Your task to perform on an android device: read, delete, or share a saved page in the chrome app Image 0: 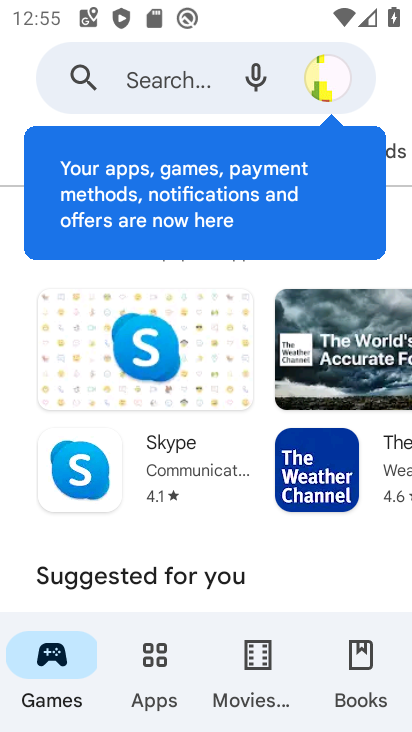
Step 0: press back button
Your task to perform on an android device: read, delete, or share a saved page in the chrome app Image 1: 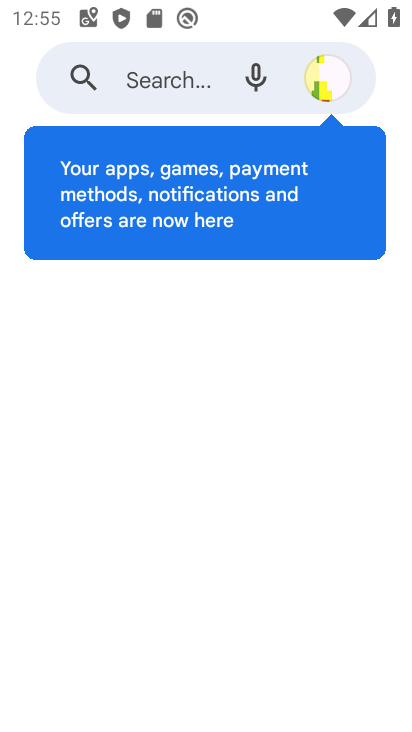
Step 1: press back button
Your task to perform on an android device: read, delete, or share a saved page in the chrome app Image 2: 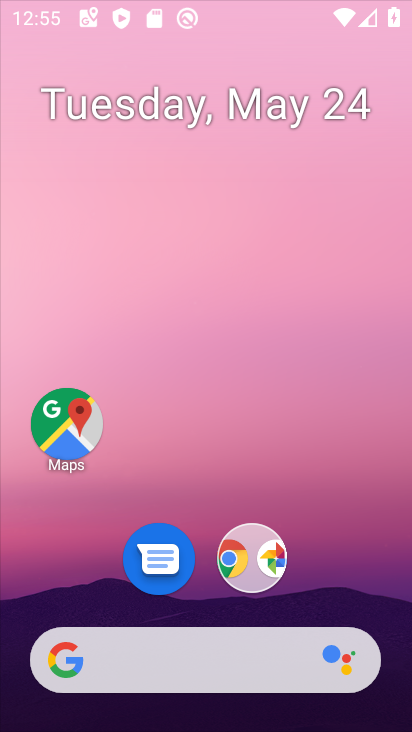
Step 2: press back button
Your task to perform on an android device: read, delete, or share a saved page in the chrome app Image 3: 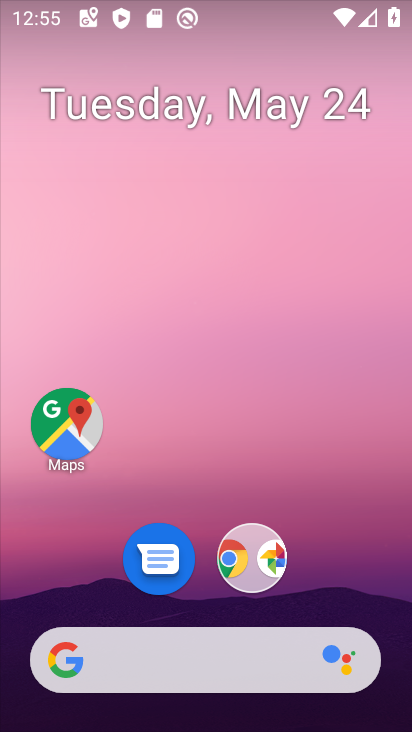
Step 3: drag from (254, 632) to (170, 33)
Your task to perform on an android device: read, delete, or share a saved page in the chrome app Image 4: 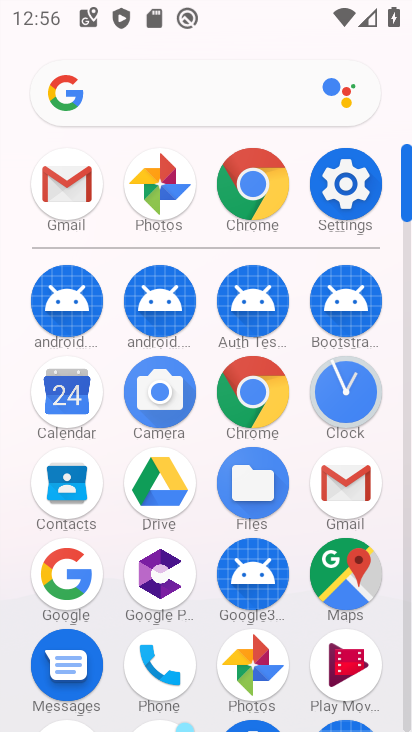
Step 4: click (346, 179)
Your task to perform on an android device: read, delete, or share a saved page in the chrome app Image 5: 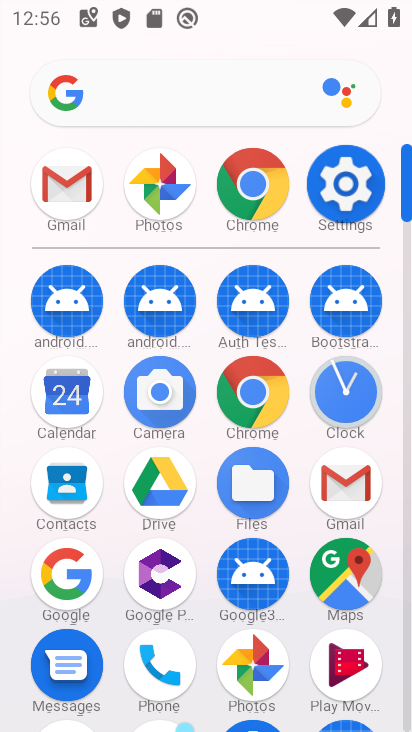
Step 5: click (346, 179)
Your task to perform on an android device: read, delete, or share a saved page in the chrome app Image 6: 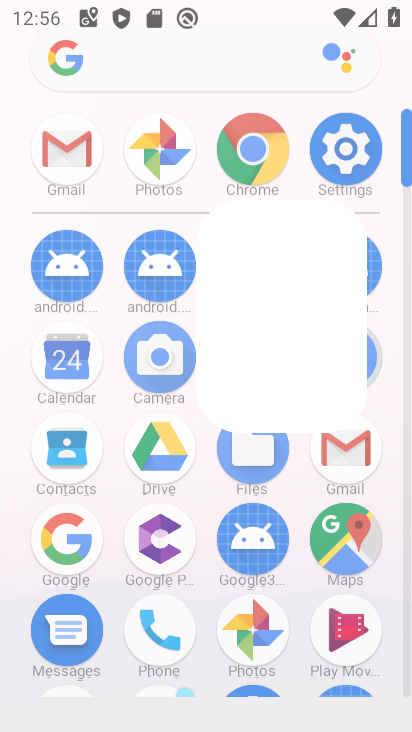
Step 6: click (345, 182)
Your task to perform on an android device: read, delete, or share a saved page in the chrome app Image 7: 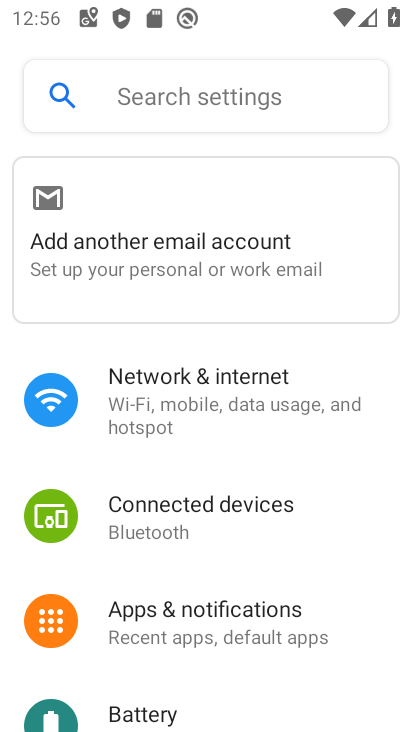
Step 7: press back button
Your task to perform on an android device: read, delete, or share a saved page in the chrome app Image 8: 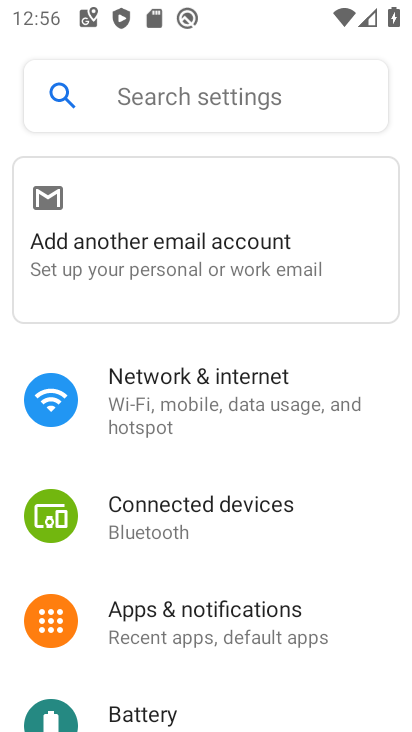
Step 8: press back button
Your task to perform on an android device: read, delete, or share a saved page in the chrome app Image 9: 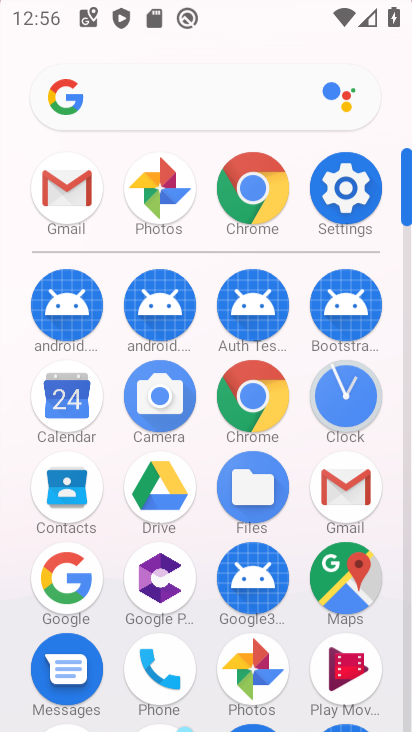
Step 9: press back button
Your task to perform on an android device: read, delete, or share a saved page in the chrome app Image 10: 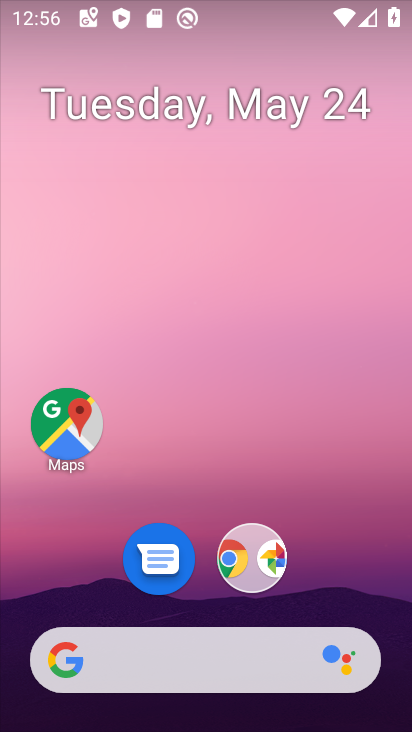
Step 10: drag from (209, 505) to (179, 21)
Your task to perform on an android device: read, delete, or share a saved page in the chrome app Image 11: 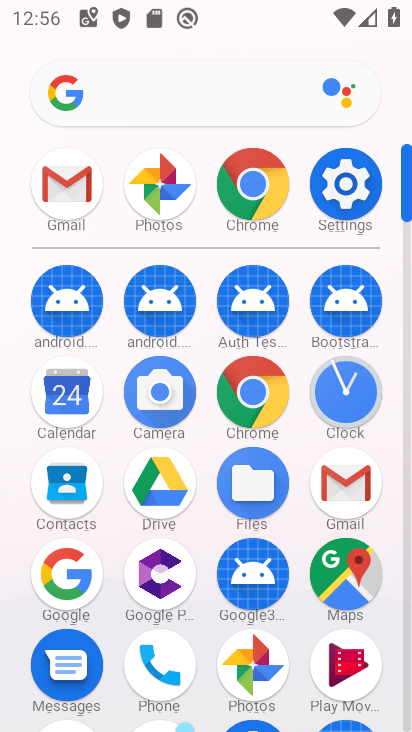
Step 11: click (260, 169)
Your task to perform on an android device: read, delete, or share a saved page in the chrome app Image 12: 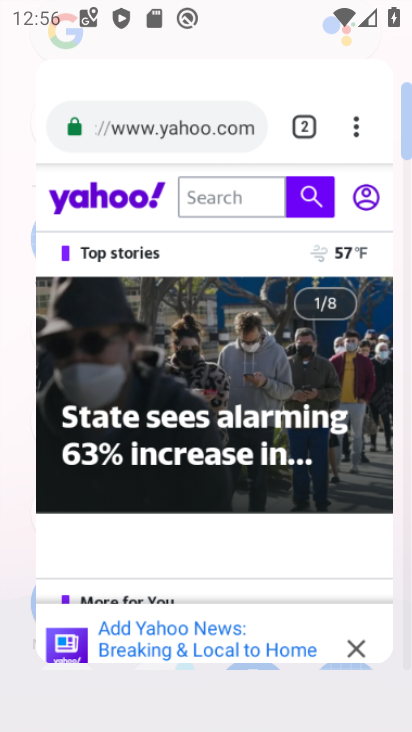
Step 12: click (256, 180)
Your task to perform on an android device: read, delete, or share a saved page in the chrome app Image 13: 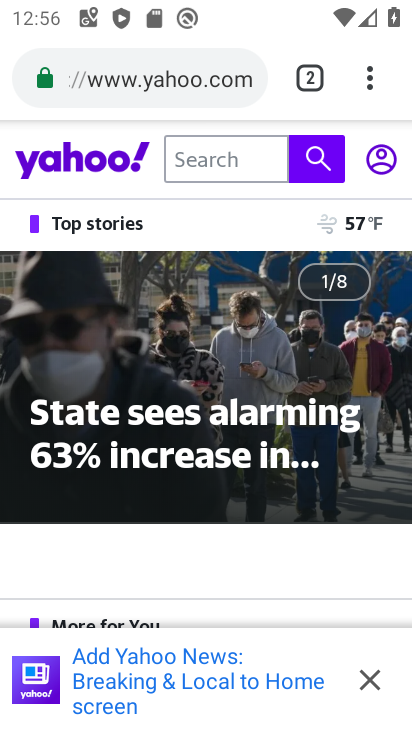
Step 13: click (366, 70)
Your task to perform on an android device: read, delete, or share a saved page in the chrome app Image 14: 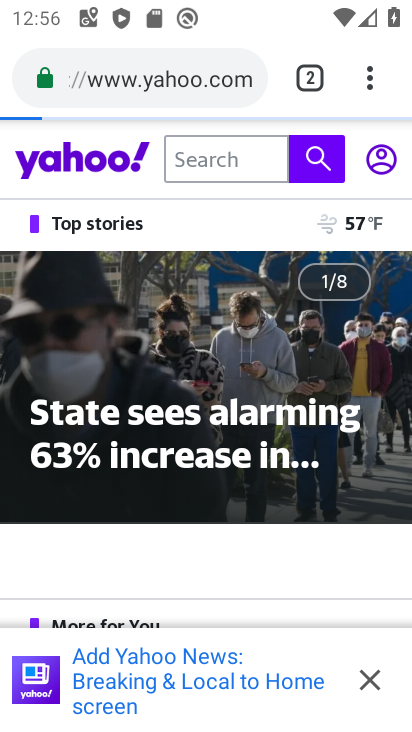
Step 14: drag from (366, 71) to (109, 297)
Your task to perform on an android device: read, delete, or share a saved page in the chrome app Image 15: 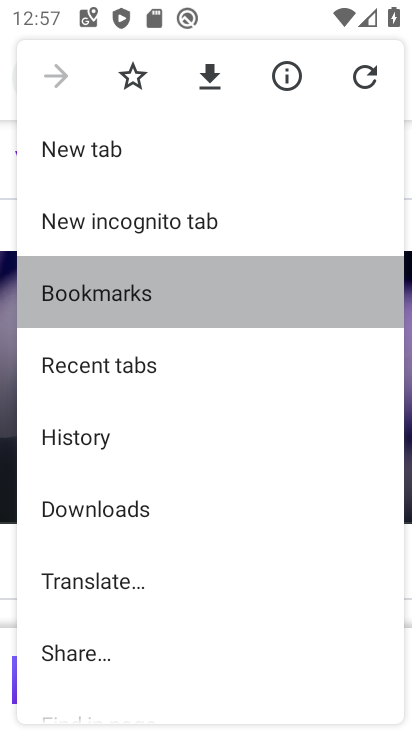
Step 15: click (109, 295)
Your task to perform on an android device: read, delete, or share a saved page in the chrome app Image 16: 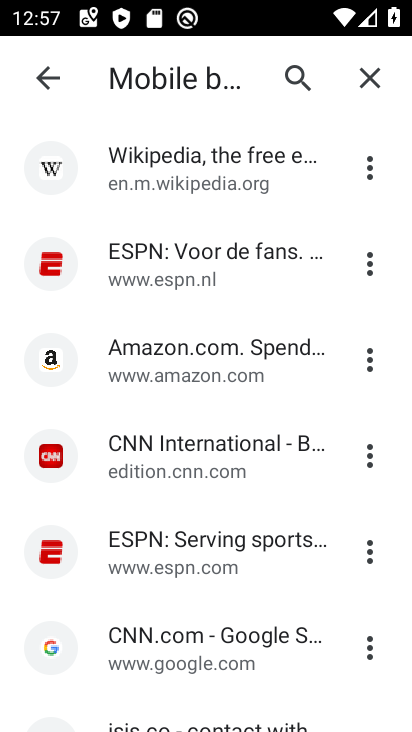
Step 16: task complete